Your task to perform on an android device: Go to privacy settings Image 0: 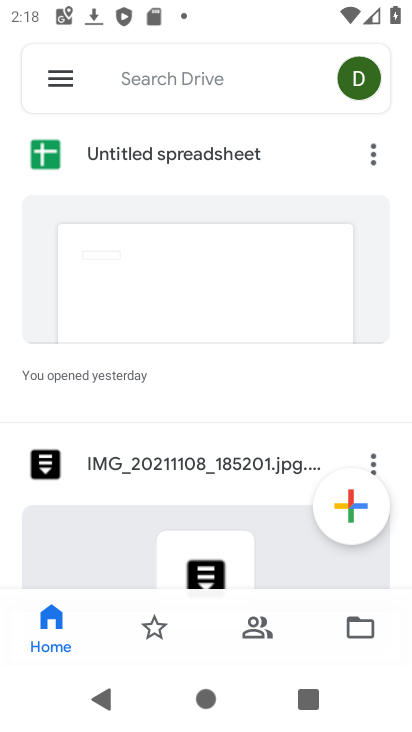
Step 0: press home button
Your task to perform on an android device: Go to privacy settings Image 1: 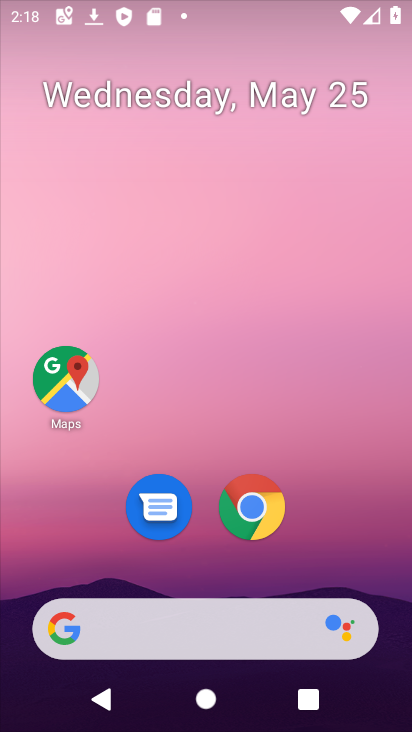
Step 1: drag from (234, 638) to (271, 43)
Your task to perform on an android device: Go to privacy settings Image 2: 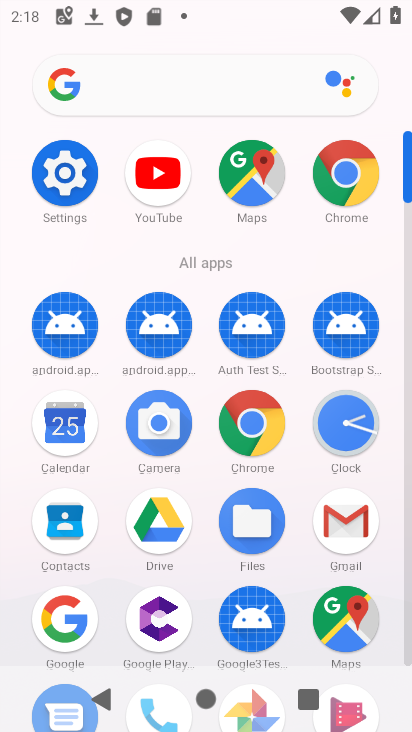
Step 2: click (79, 188)
Your task to perform on an android device: Go to privacy settings Image 3: 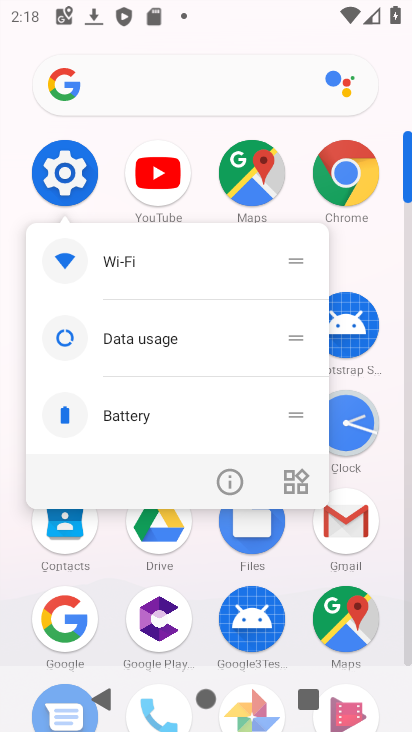
Step 3: click (79, 188)
Your task to perform on an android device: Go to privacy settings Image 4: 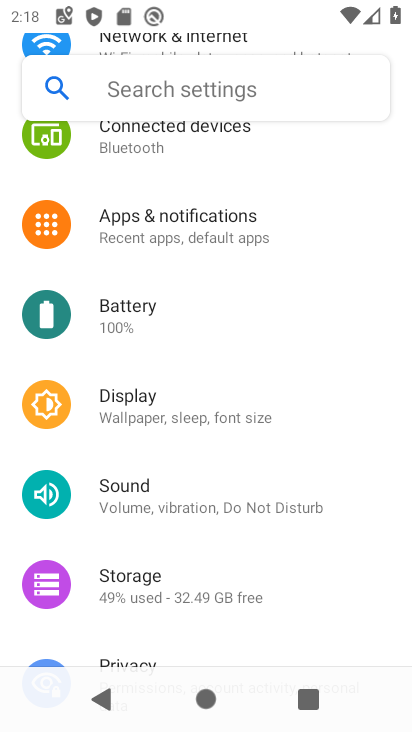
Step 4: drag from (203, 522) to (215, 197)
Your task to perform on an android device: Go to privacy settings Image 5: 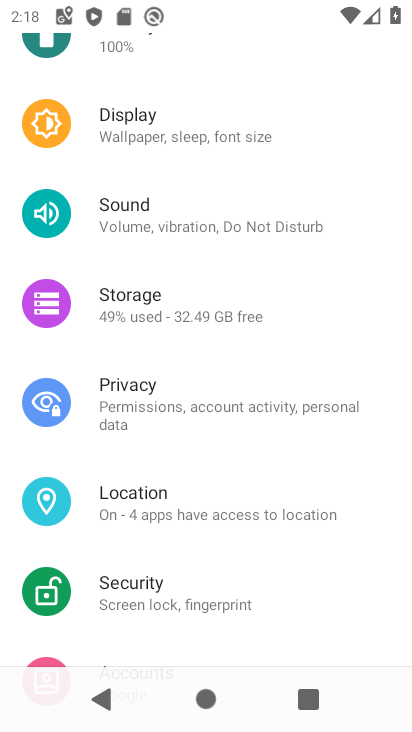
Step 5: click (198, 412)
Your task to perform on an android device: Go to privacy settings Image 6: 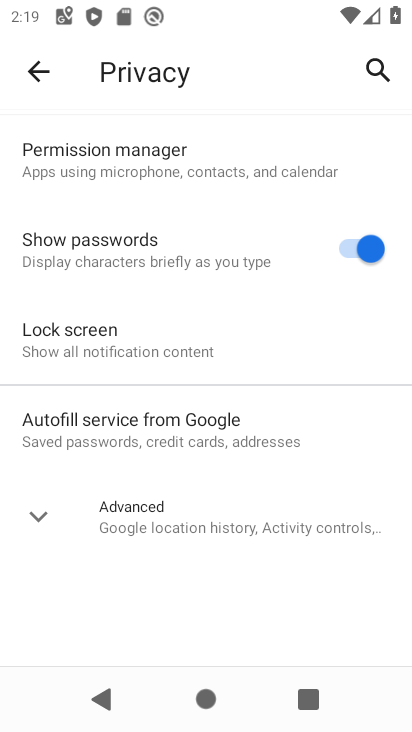
Step 6: task complete